Your task to perform on an android device: Open CNN.com Image 0: 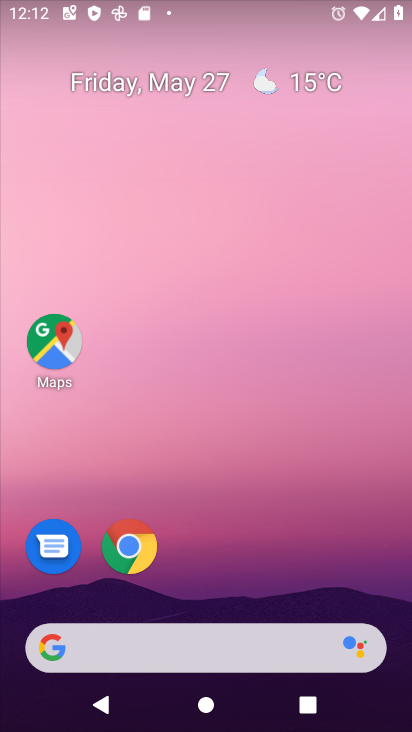
Step 0: drag from (214, 560) to (227, 98)
Your task to perform on an android device: Open CNN.com Image 1: 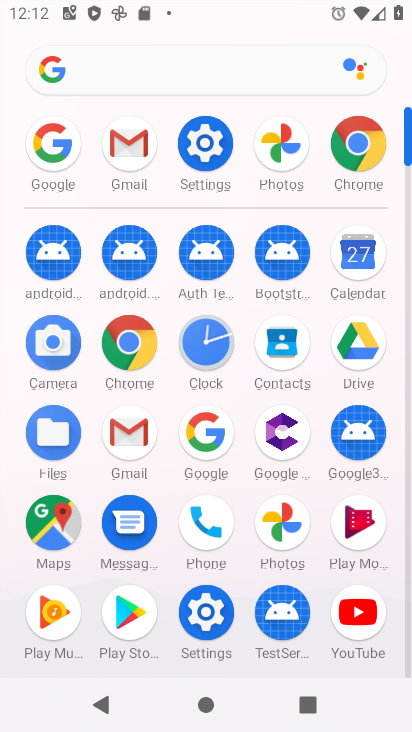
Step 1: click (54, 144)
Your task to perform on an android device: Open CNN.com Image 2: 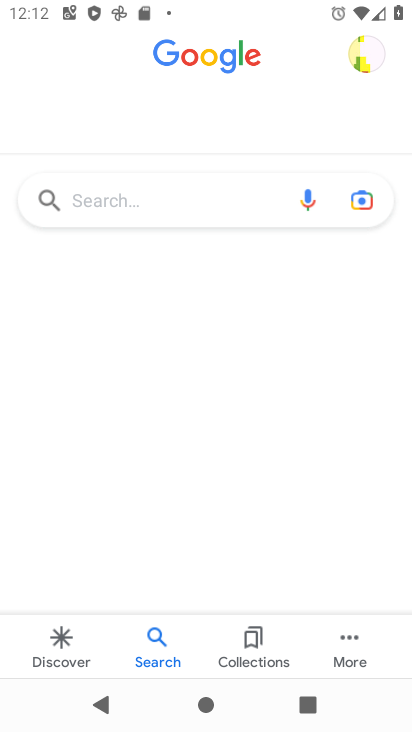
Step 2: click (160, 211)
Your task to perform on an android device: Open CNN.com Image 3: 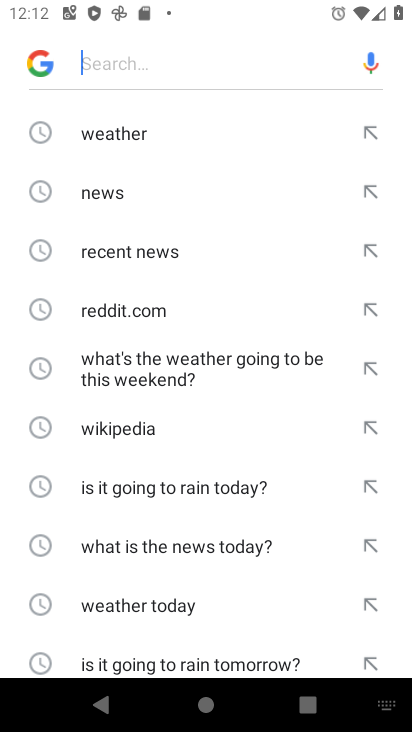
Step 3: drag from (217, 534) to (203, 217)
Your task to perform on an android device: Open CNN.com Image 4: 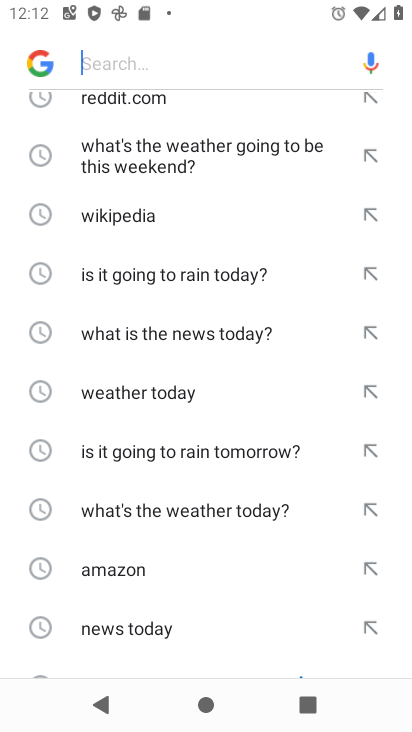
Step 4: drag from (215, 609) to (199, 298)
Your task to perform on an android device: Open CNN.com Image 5: 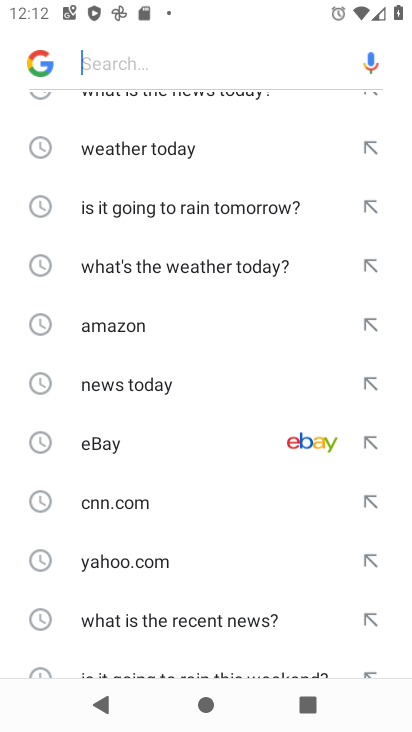
Step 5: click (133, 495)
Your task to perform on an android device: Open CNN.com Image 6: 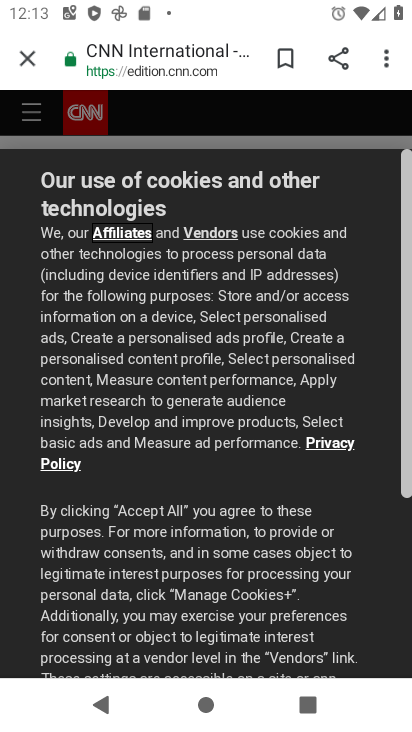
Step 6: task complete